Your task to perform on an android device: turn pop-ups off in chrome Image 0: 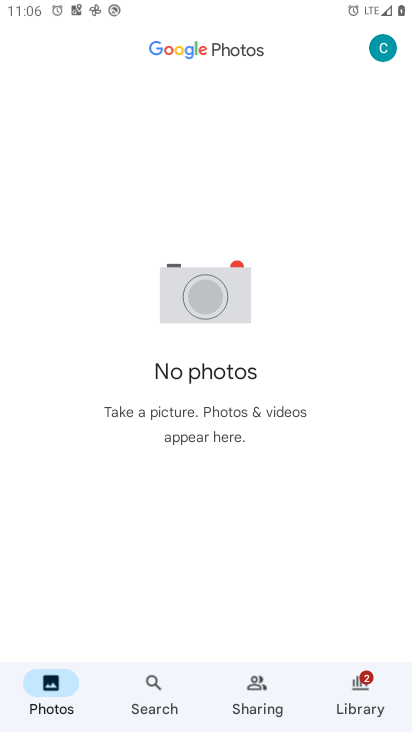
Step 0: press home button
Your task to perform on an android device: turn pop-ups off in chrome Image 1: 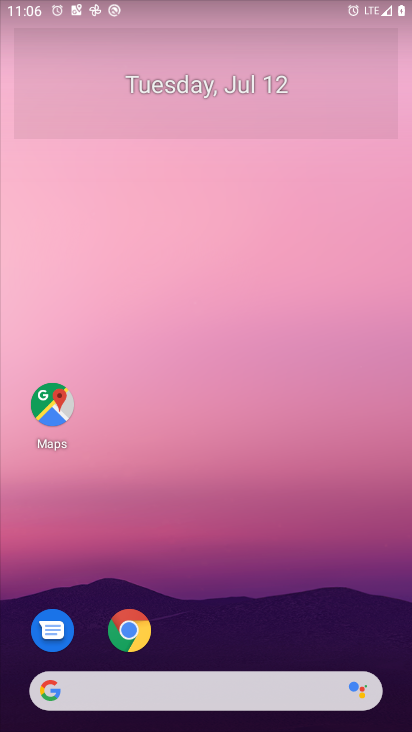
Step 1: drag from (258, 618) to (281, 79)
Your task to perform on an android device: turn pop-ups off in chrome Image 2: 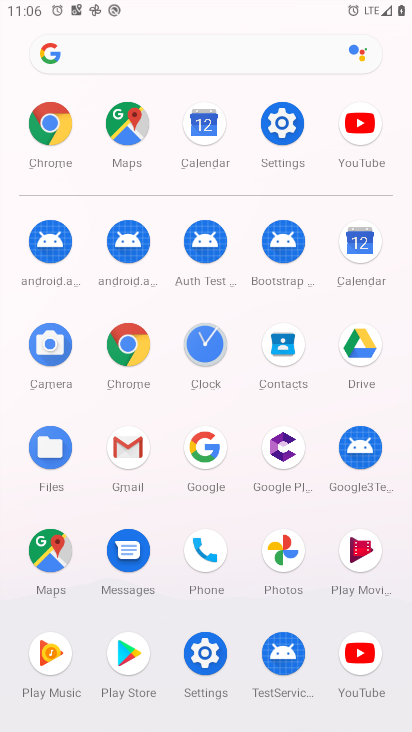
Step 2: click (130, 339)
Your task to perform on an android device: turn pop-ups off in chrome Image 3: 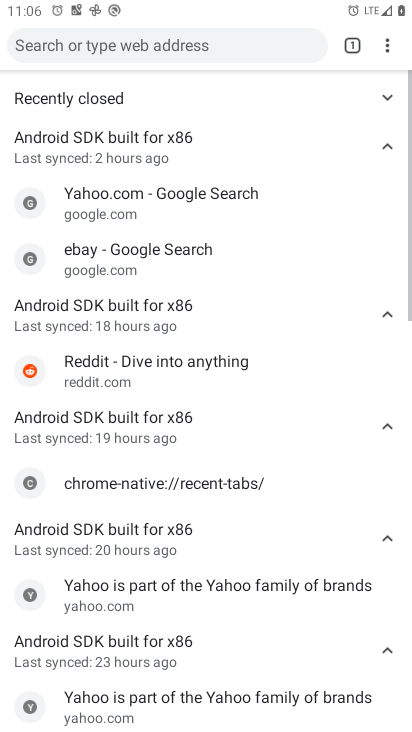
Step 3: drag from (387, 49) to (229, 373)
Your task to perform on an android device: turn pop-ups off in chrome Image 4: 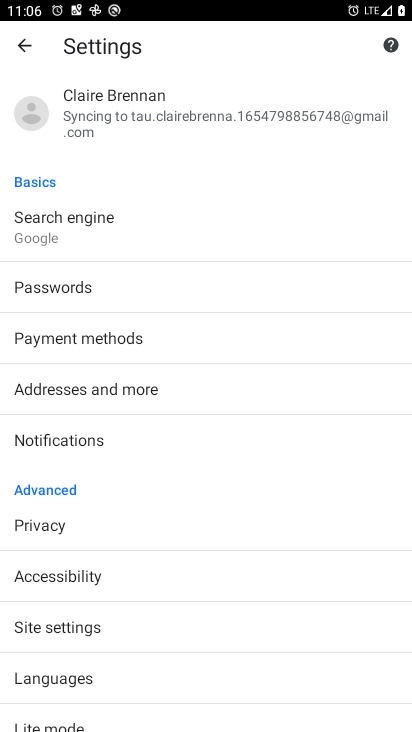
Step 4: click (94, 632)
Your task to perform on an android device: turn pop-ups off in chrome Image 5: 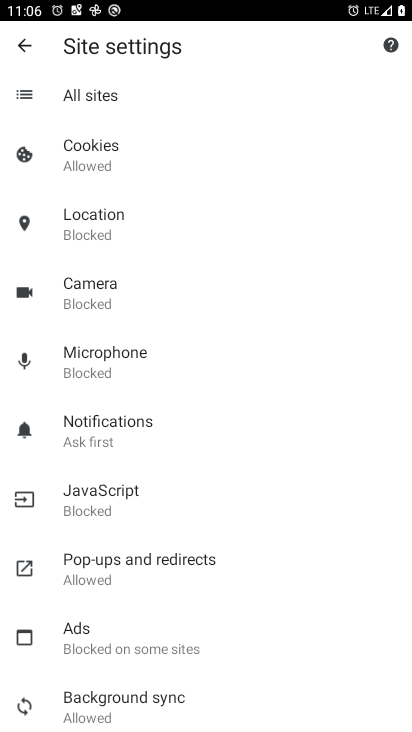
Step 5: click (97, 557)
Your task to perform on an android device: turn pop-ups off in chrome Image 6: 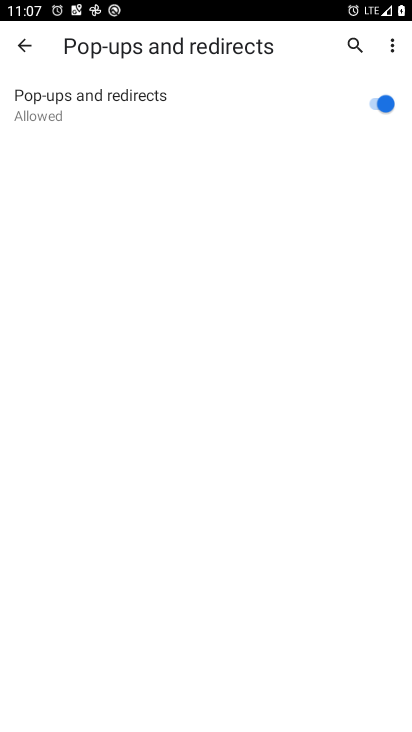
Step 6: click (384, 100)
Your task to perform on an android device: turn pop-ups off in chrome Image 7: 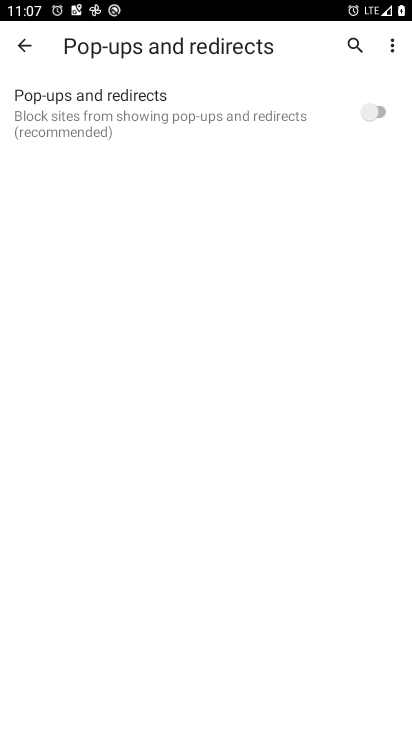
Step 7: task complete